Your task to perform on an android device: change notifications settings Image 0: 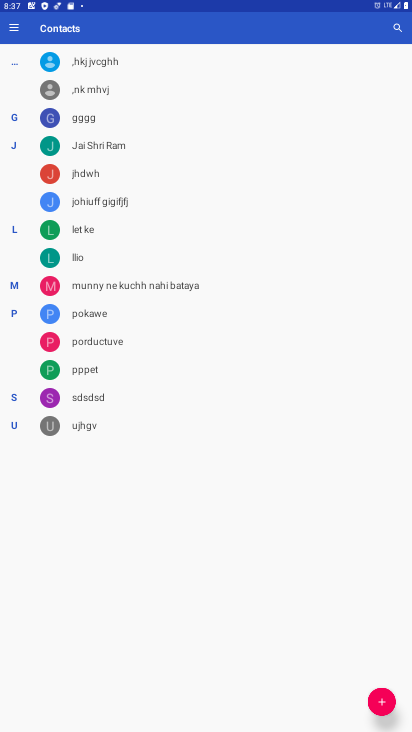
Step 0: press home button
Your task to perform on an android device: change notifications settings Image 1: 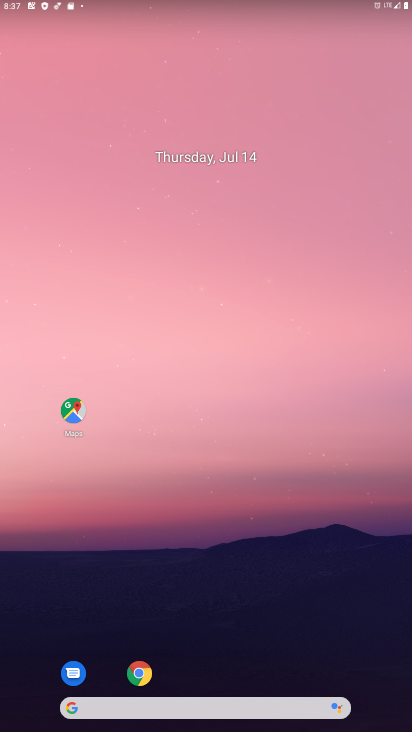
Step 1: drag from (197, 705) to (132, 287)
Your task to perform on an android device: change notifications settings Image 2: 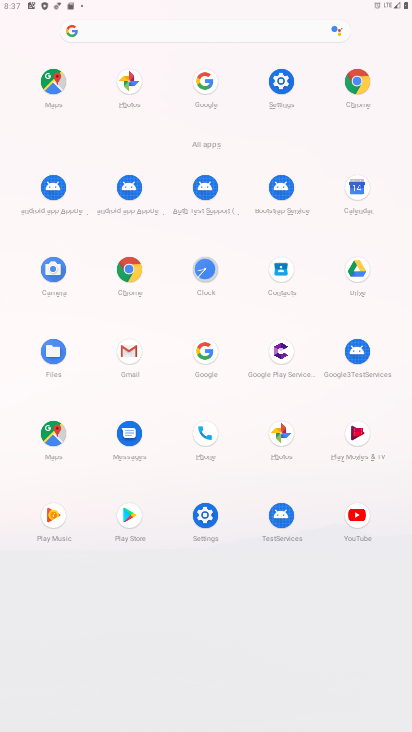
Step 2: click (128, 350)
Your task to perform on an android device: change notifications settings Image 3: 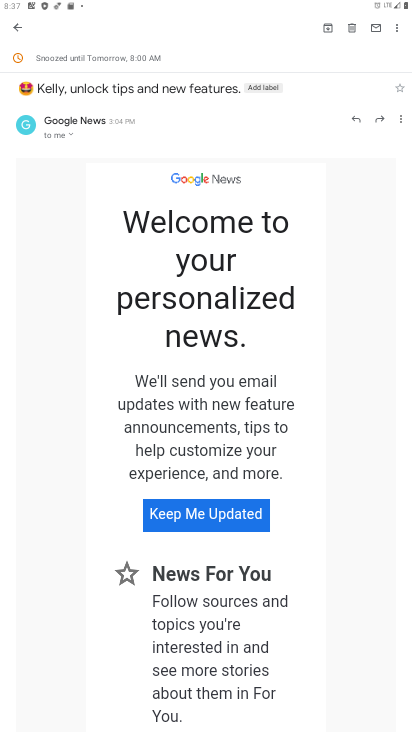
Step 3: press back button
Your task to perform on an android device: change notifications settings Image 4: 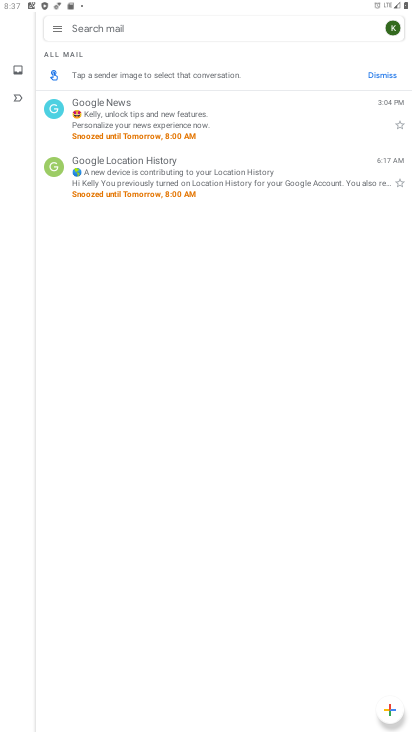
Step 4: click (58, 27)
Your task to perform on an android device: change notifications settings Image 5: 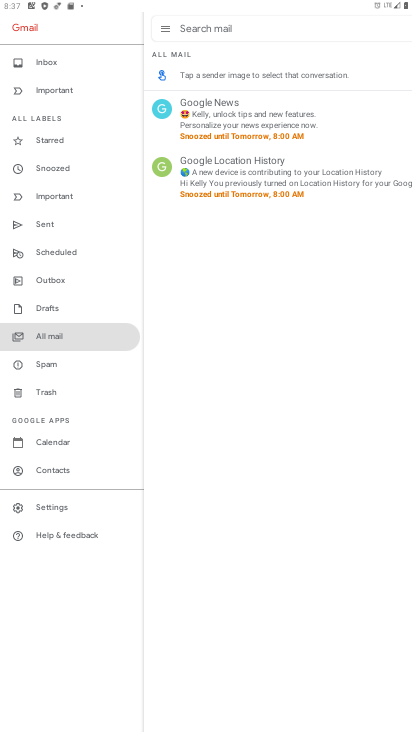
Step 5: click (67, 503)
Your task to perform on an android device: change notifications settings Image 6: 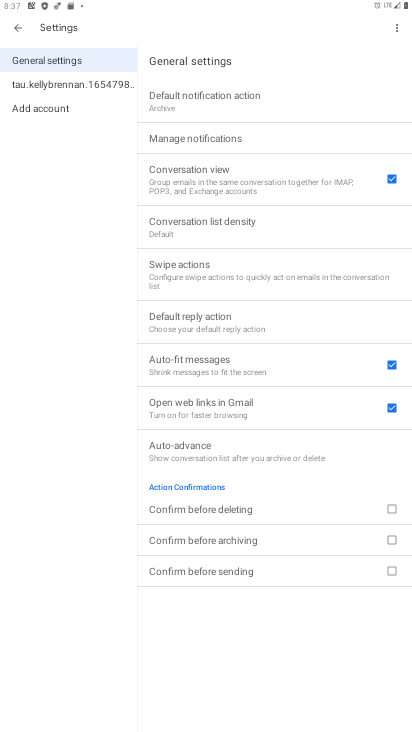
Step 6: click (112, 85)
Your task to perform on an android device: change notifications settings Image 7: 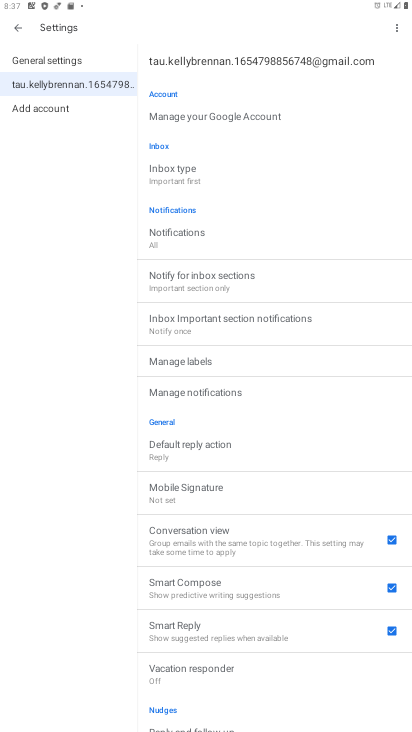
Step 7: click (207, 389)
Your task to perform on an android device: change notifications settings Image 8: 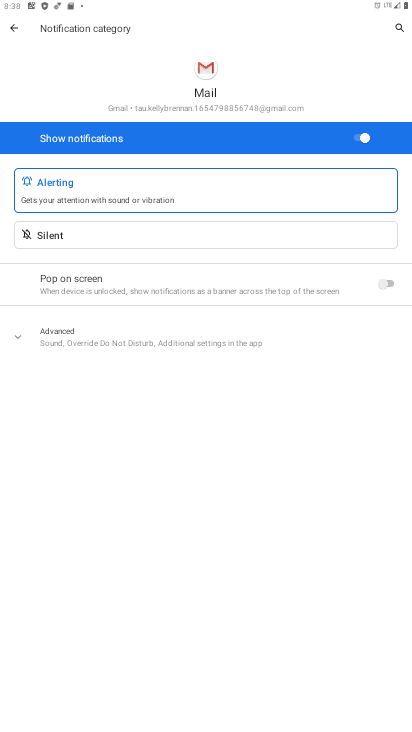
Step 8: click (356, 135)
Your task to perform on an android device: change notifications settings Image 9: 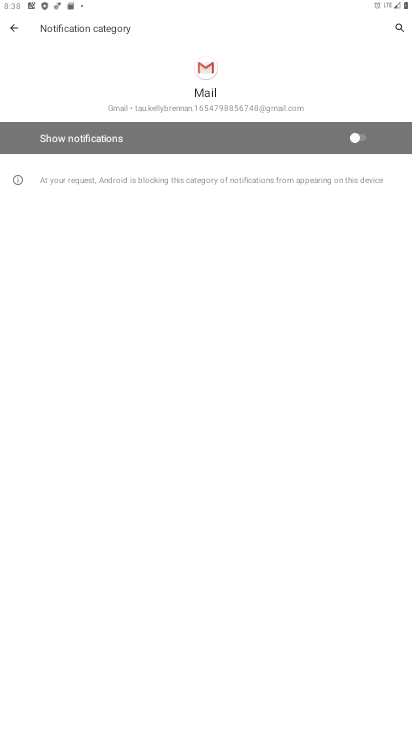
Step 9: task complete